Your task to perform on an android device: turn off improve location accuracy Image 0: 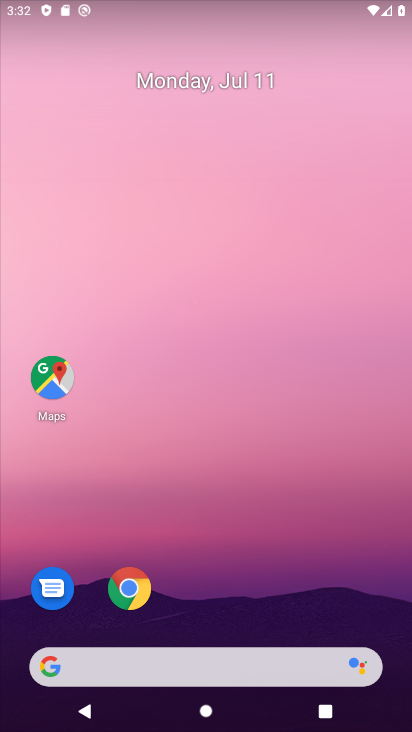
Step 0: press home button
Your task to perform on an android device: turn off improve location accuracy Image 1: 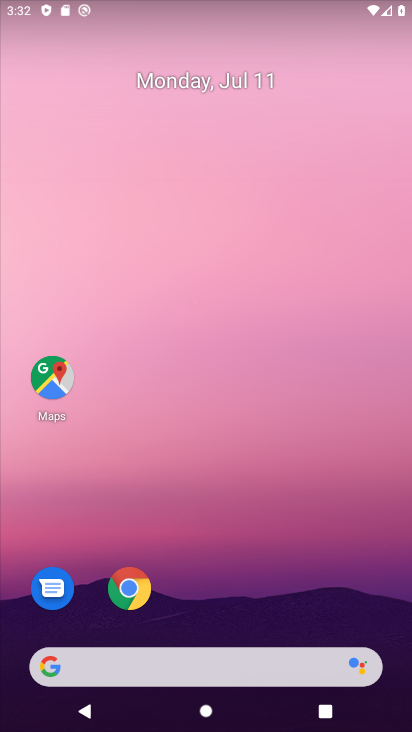
Step 1: drag from (252, 589) to (252, 143)
Your task to perform on an android device: turn off improve location accuracy Image 2: 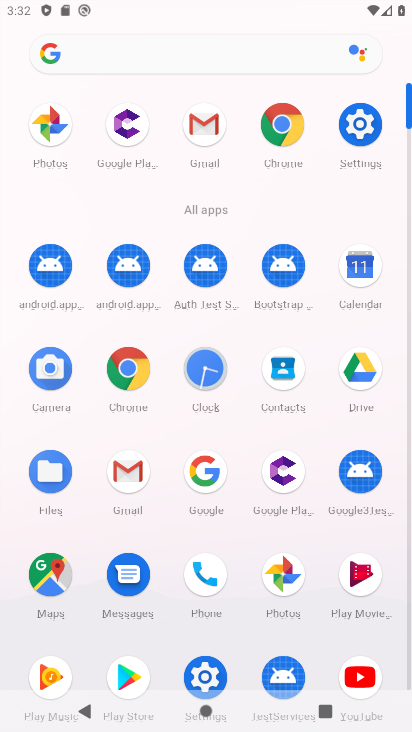
Step 2: click (357, 127)
Your task to perform on an android device: turn off improve location accuracy Image 3: 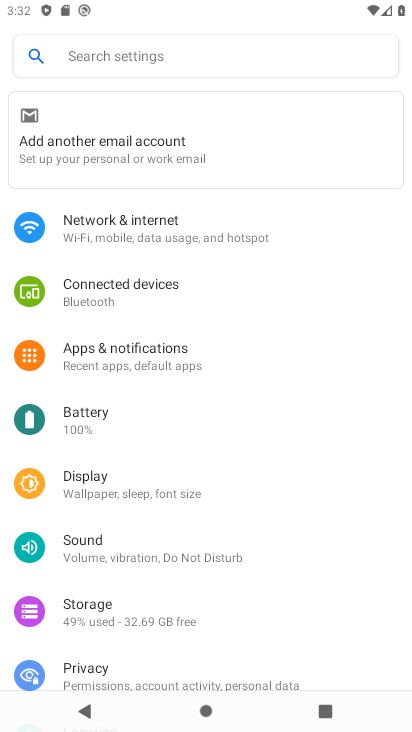
Step 3: drag from (297, 591) to (301, 97)
Your task to perform on an android device: turn off improve location accuracy Image 4: 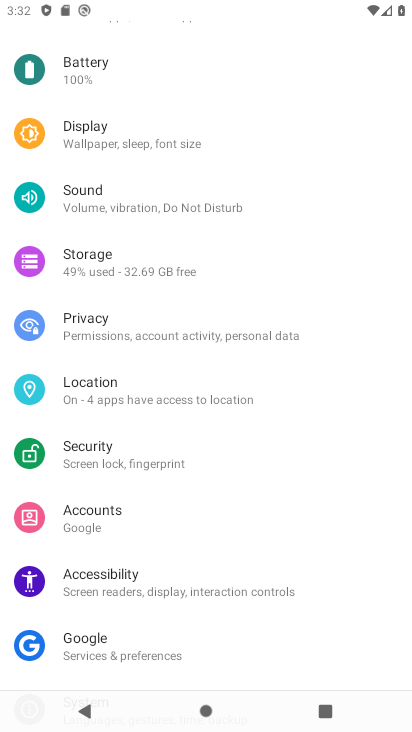
Step 4: click (86, 393)
Your task to perform on an android device: turn off improve location accuracy Image 5: 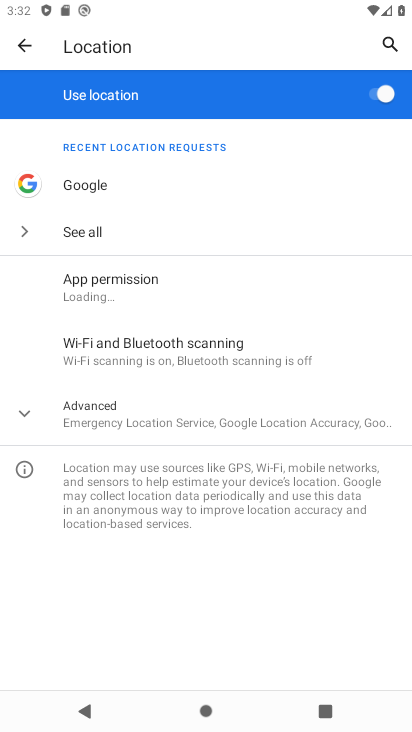
Step 5: click (92, 416)
Your task to perform on an android device: turn off improve location accuracy Image 6: 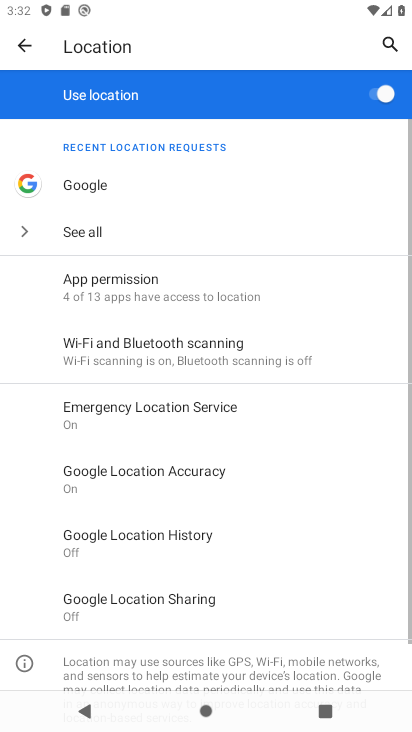
Step 6: click (140, 470)
Your task to perform on an android device: turn off improve location accuracy Image 7: 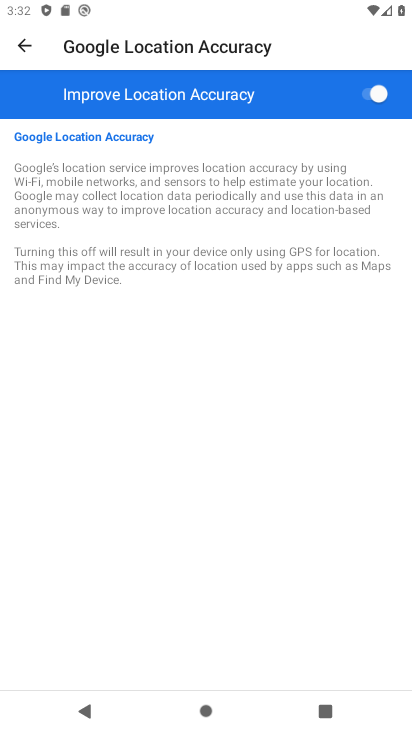
Step 7: click (382, 94)
Your task to perform on an android device: turn off improve location accuracy Image 8: 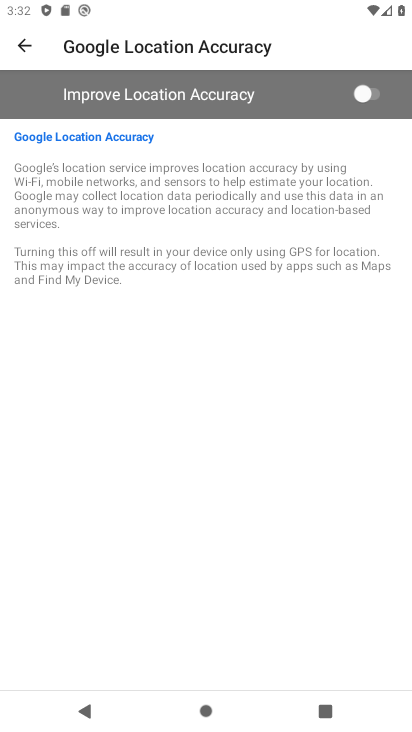
Step 8: task complete